Your task to perform on an android device: change the clock display to show seconds Image 0: 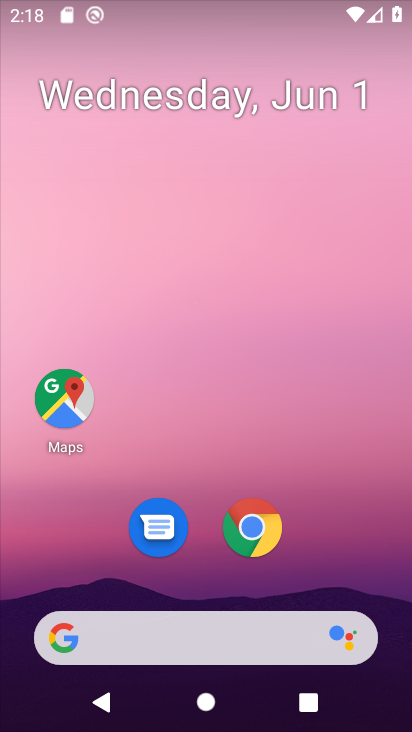
Step 0: drag from (176, 587) to (203, 308)
Your task to perform on an android device: change the clock display to show seconds Image 1: 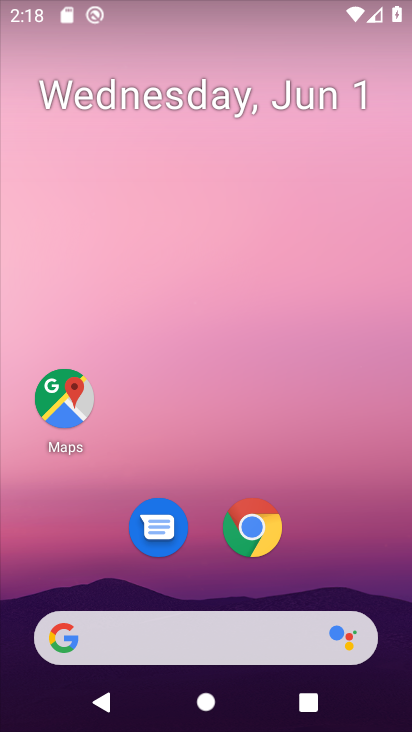
Step 1: drag from (238, 587) to (337, 1)
Your task to perform on an android device: change the clock display to show seconds Image 2: 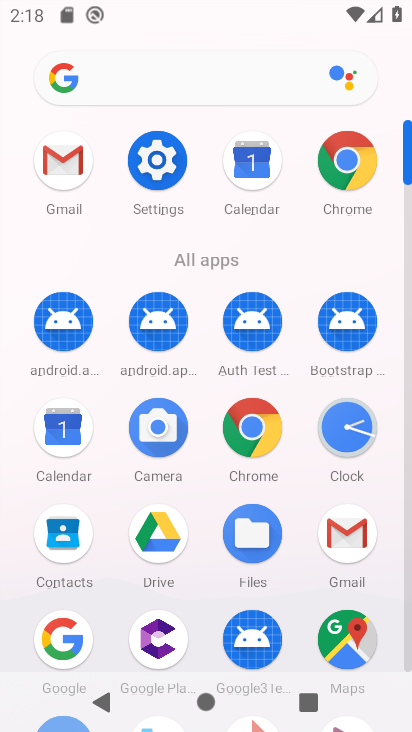
Step 2: click (345, 433)
Your task to perform on an android device: change the clock display to show seconds Image 3: 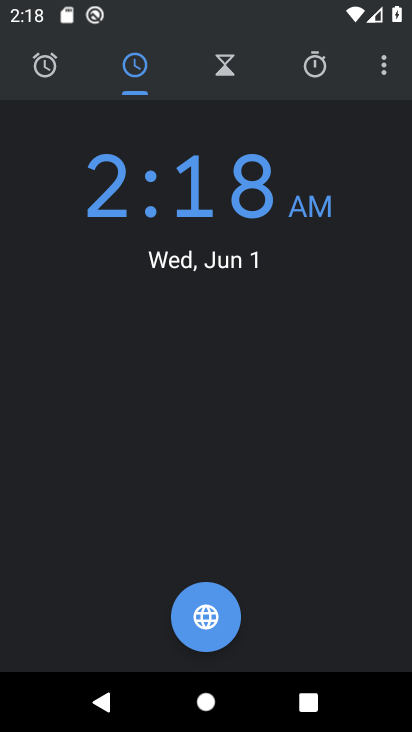
Step 3: click (388, 69)
Your task to perform on an android device: change the clock display to show seconds Image 4: 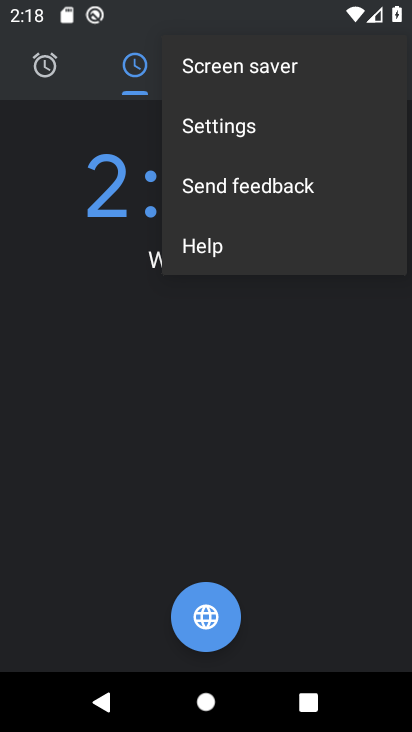
Step 4: click (220, 147)
Your task to perform on an android device: change the clock display to show seconds Image 5: 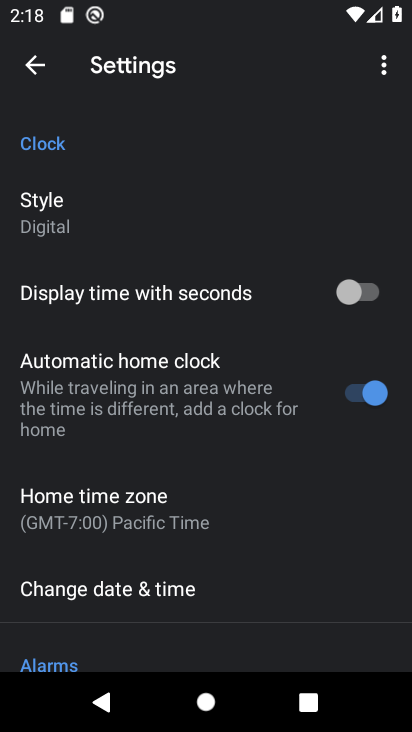
Step 5: click (82, 226)
Your task to perform on an android device: change the clock display to show seconds Image 6: 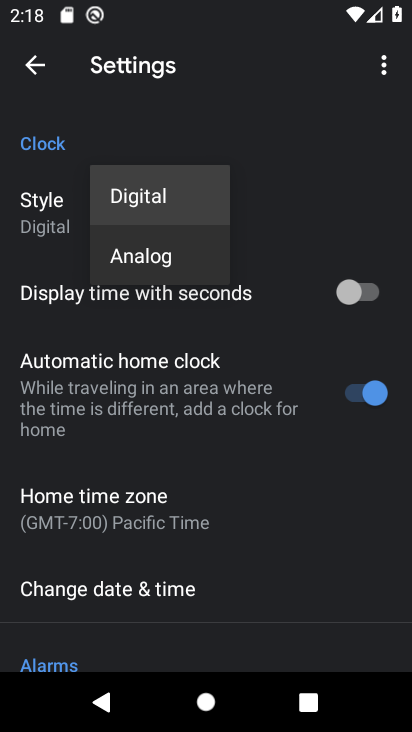
Step 6: click (116, 257)
Your task to perform on an android device: change the clock display to show seconds Image 7: 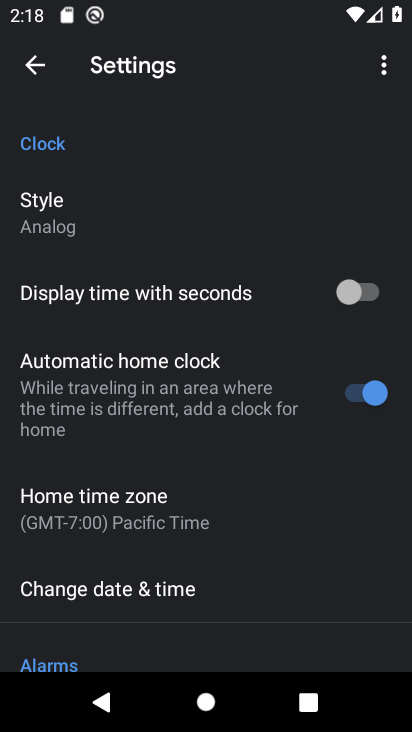
Step 7: click (375, 293)
Your task to perform on an android device: change the clock display to show seconds Image 8: 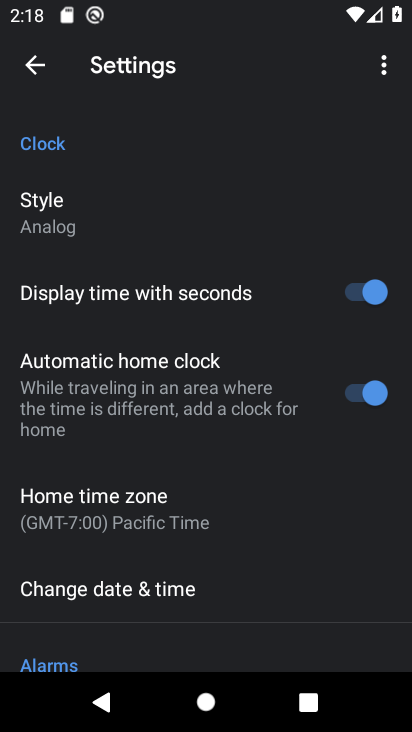
Step 8: task complete